Your task to perform on an android device: Show me productivity apps on the Play Store Image 0: 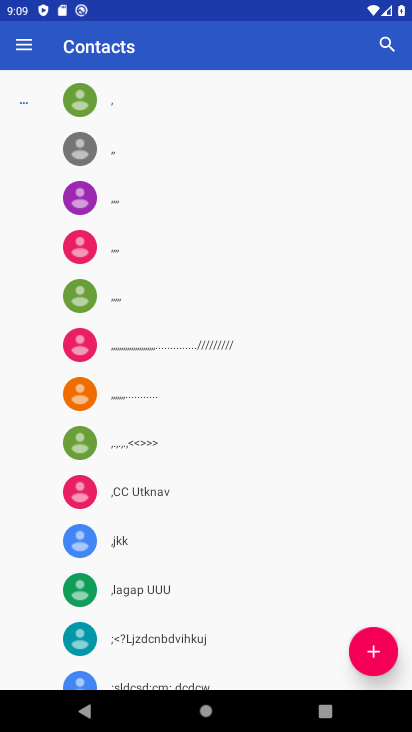
Step 0: press home button
Your task to perform on an android device: Show me productivity apps on the Play Store Image 1: 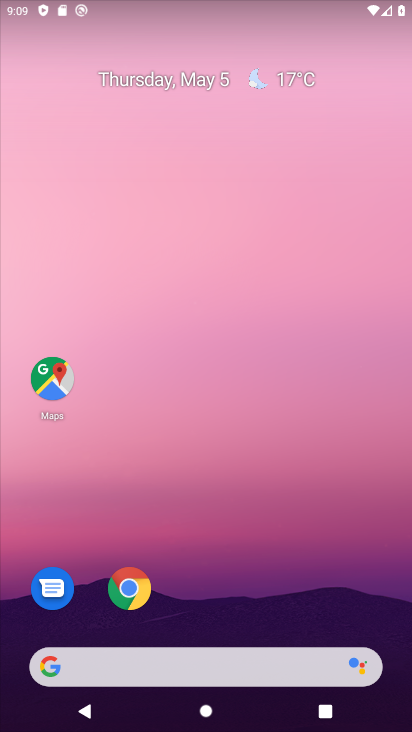
Step 1: drag from (268, 559) to (306, 234)
Your task to perform on an android device: Show me productivity apps on the Play Store Image 2: 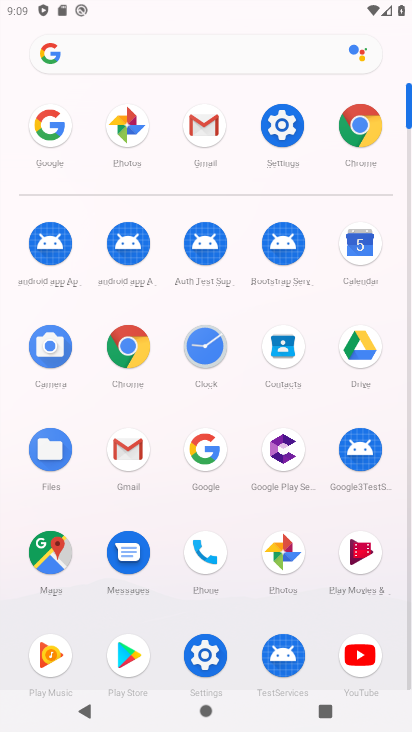
Step 2: click (130, 650)
Your task to perform on an android device: Show me productivity apps on the Play Store Image 3: 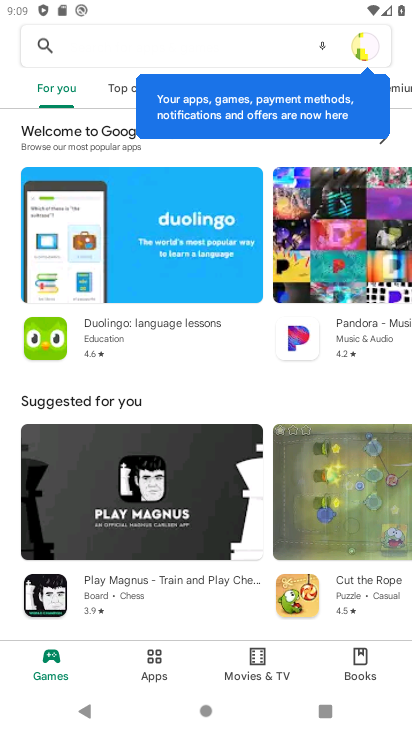
Step 3: click (142, 665)
Your task to perform on an android device: Show me productivity apps on the Play Store Image 4: 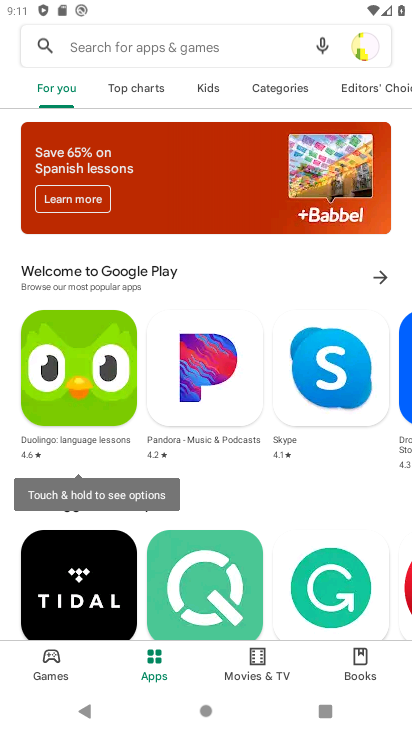
Step 4: task complete